Your task to perform on an android device: Clear the cart on walmart.com. Add "bose soundlink mini" to the cart on walmart.com Image 0: 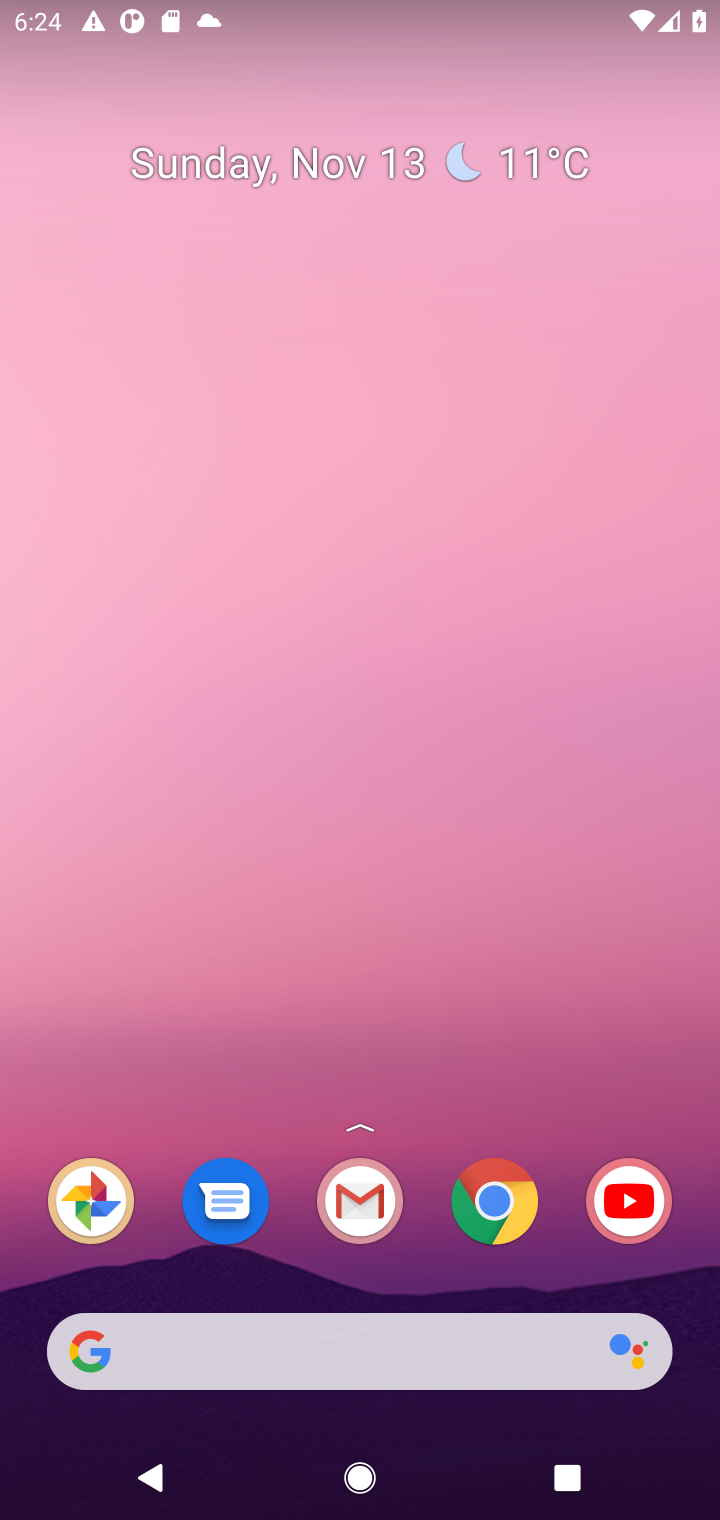
Step 0: drag from (412, 1307) to (445, 206)
Your task to perform on an android device: Clear the cart on walmart.com. Add "bose soundlink mini" to the cart on walmart.com Image 1: 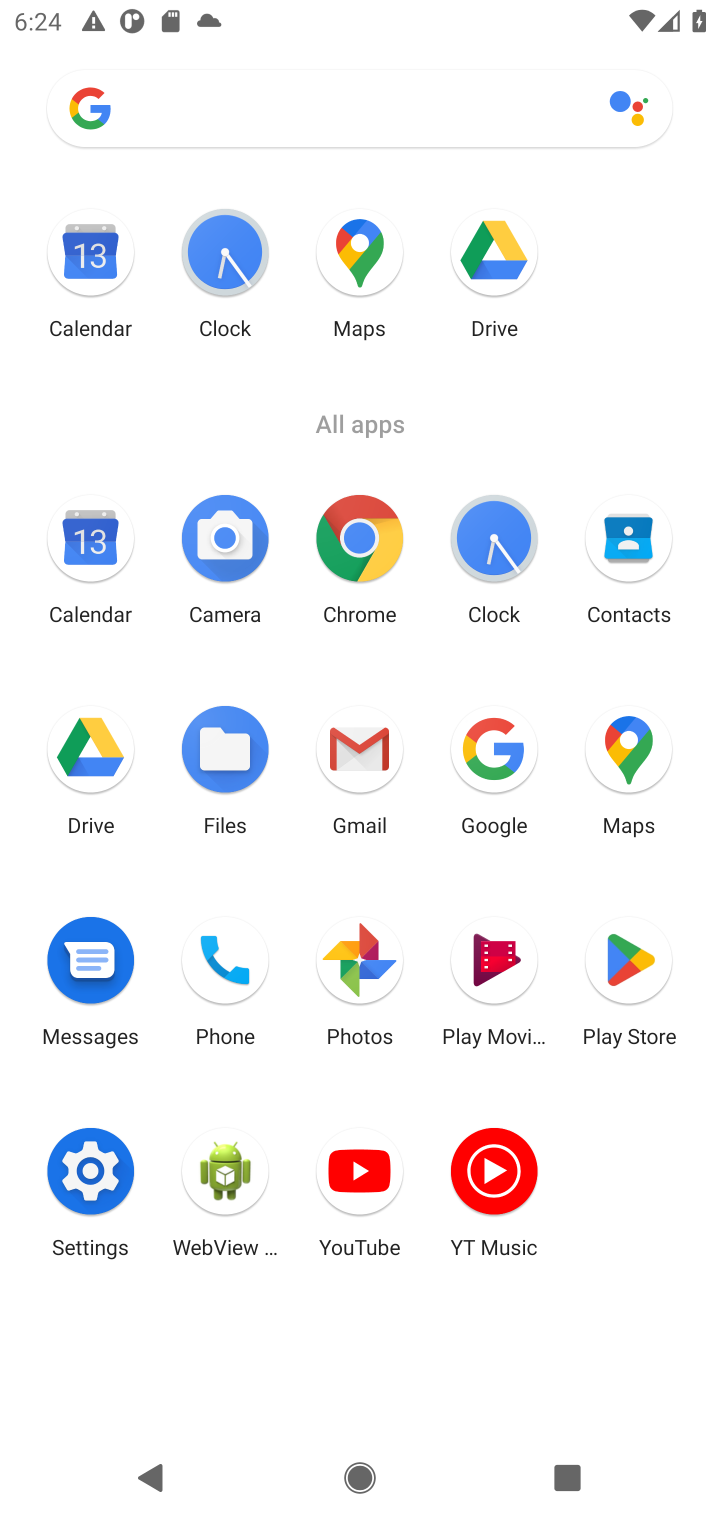
Step 1: click (348, 535)
Your task to perform on an android device: Clear the cart on walmart.com. Add "bose soundlink mini" to the cart on walmart.com Image 2: 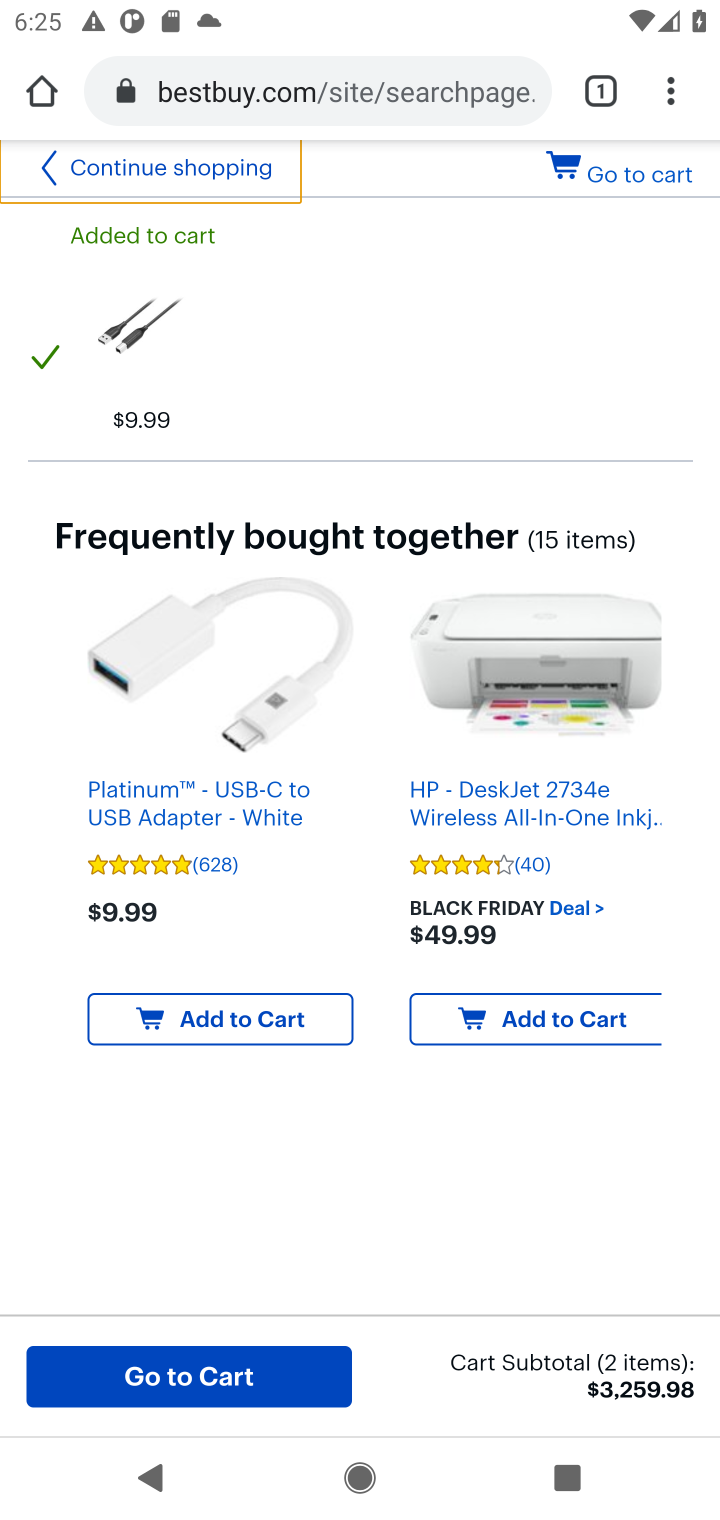
Step 2: click (226, 99)
Your task to perform on an android device: Clear the cart on walmart.com. Add "bose soundlink mini" to the cart on walmart.com Image 3: 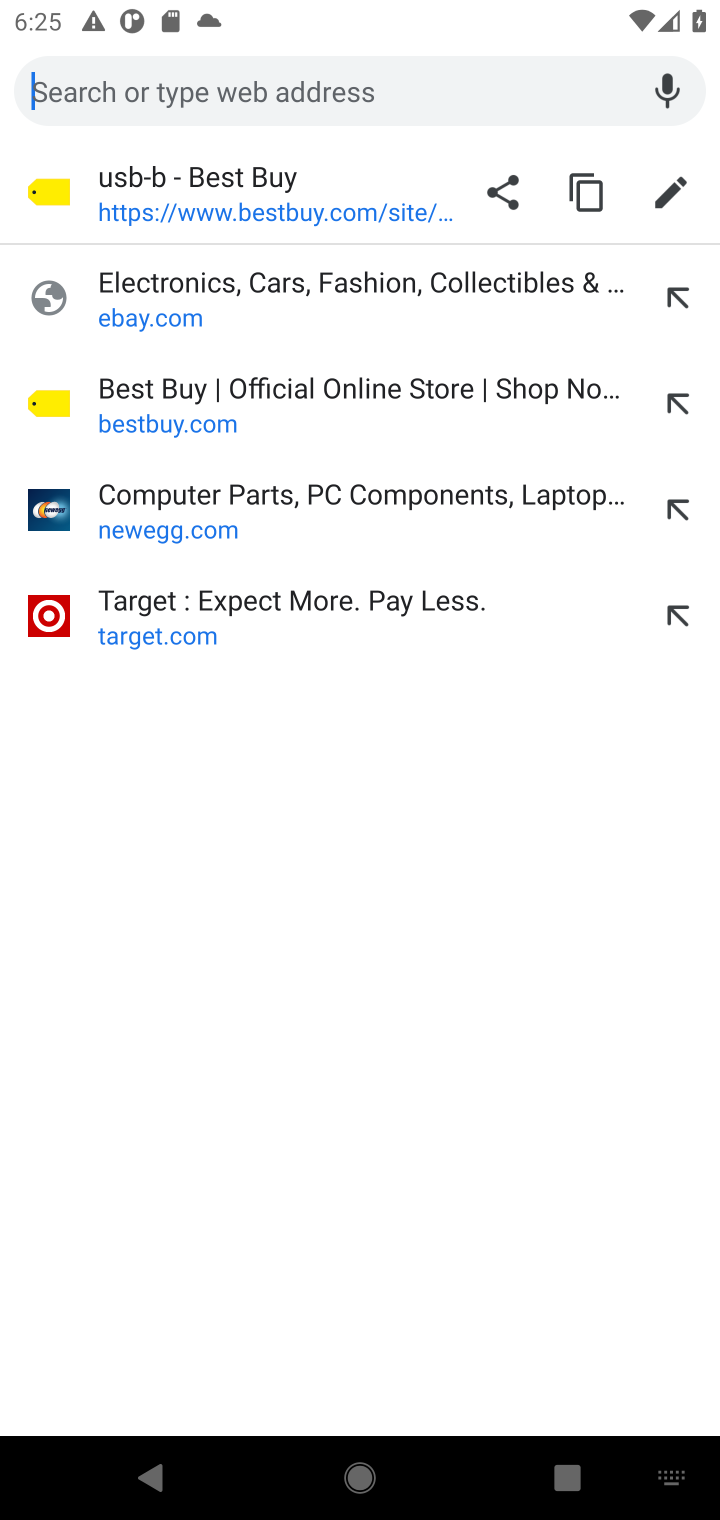
Step 3: type "walmart.com"
Your task to perform on an android device: Clear the cart on walmart.com. Add "bose soundlink mini" to the cart on walmart.com Image 4: 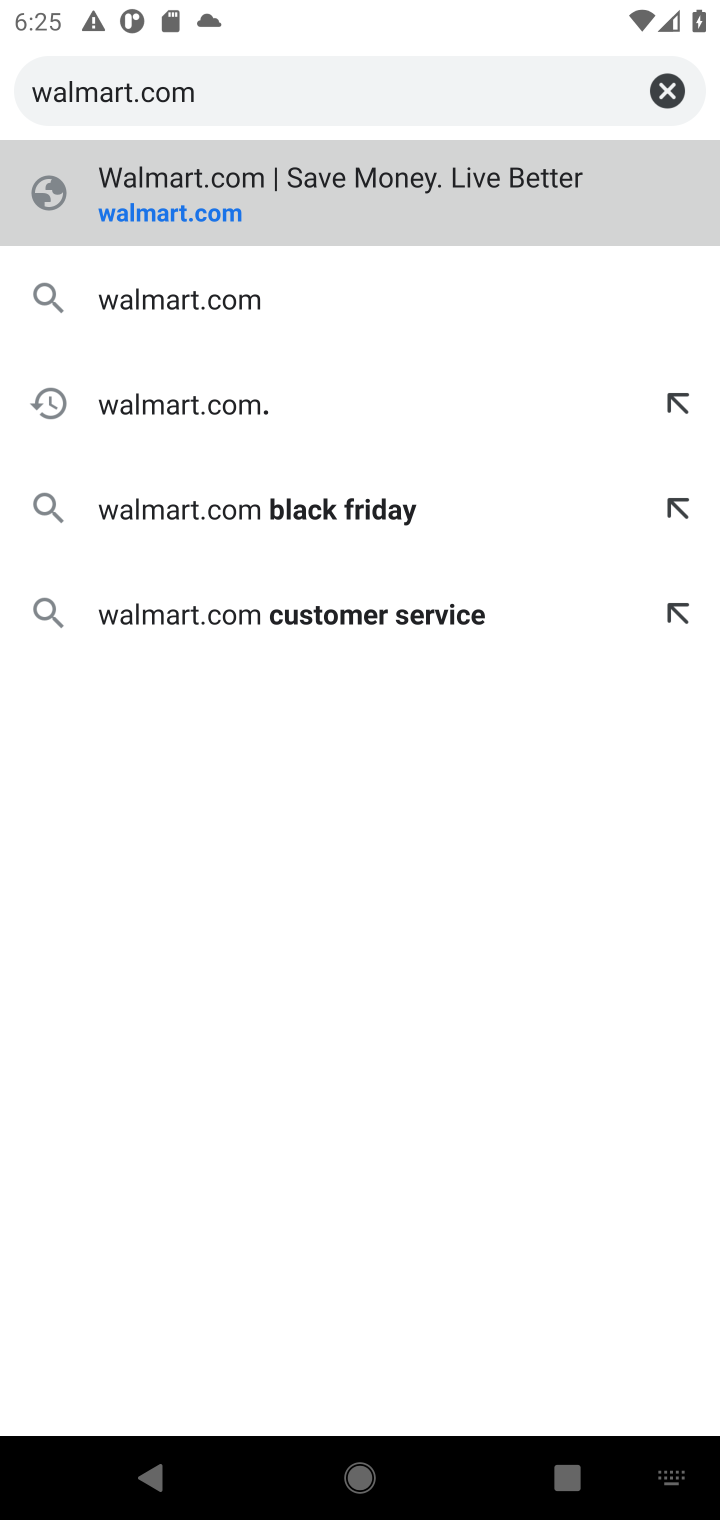
Step 4: press enter
Your task to perform on an android device: Clear the cart on walmart.com. Add "bose soundlink mini" to the cart on walmart.com Image 5: 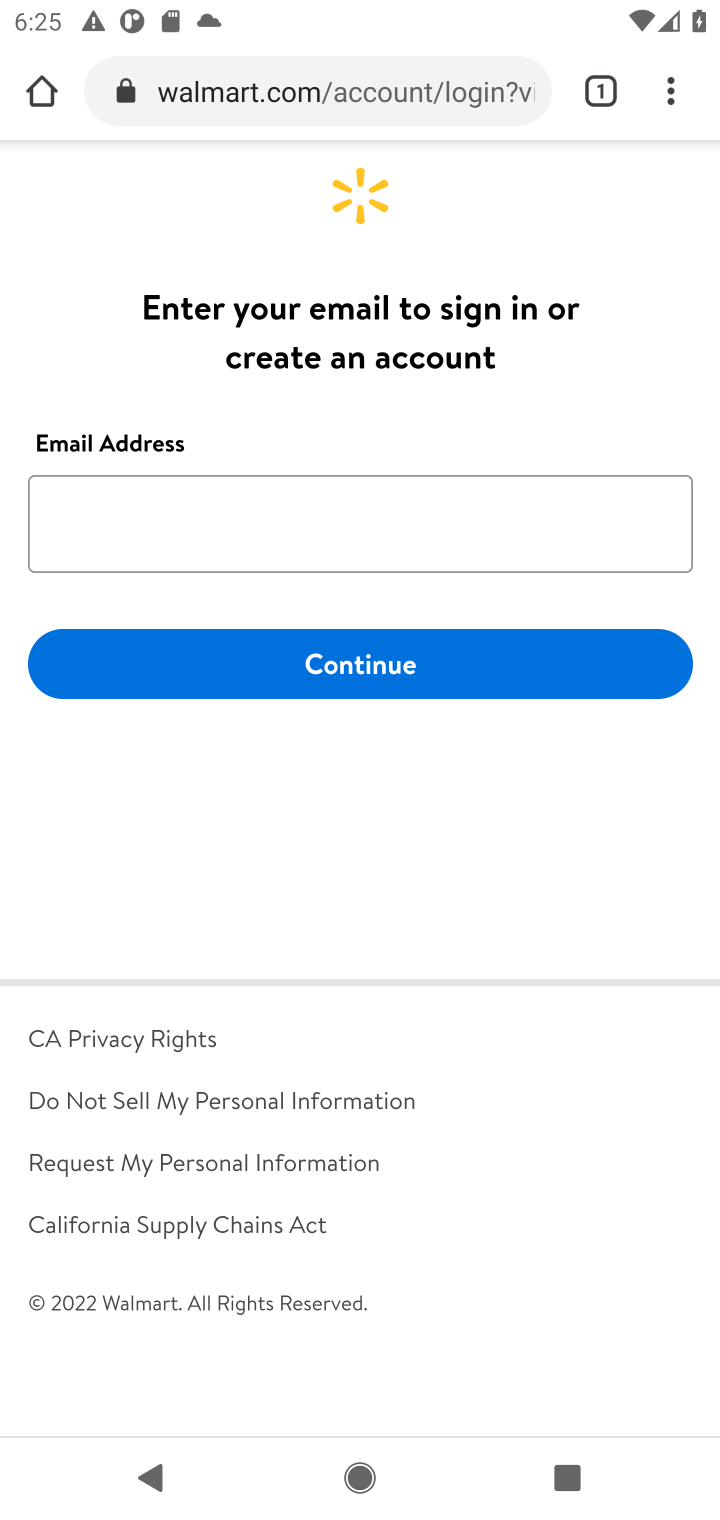
Step 5: click (388, 83)
Your task to perform on an android device: Clear the cart on walmart.com. Add "bose soundlink mini" to the cart on walmart.com Image 6: 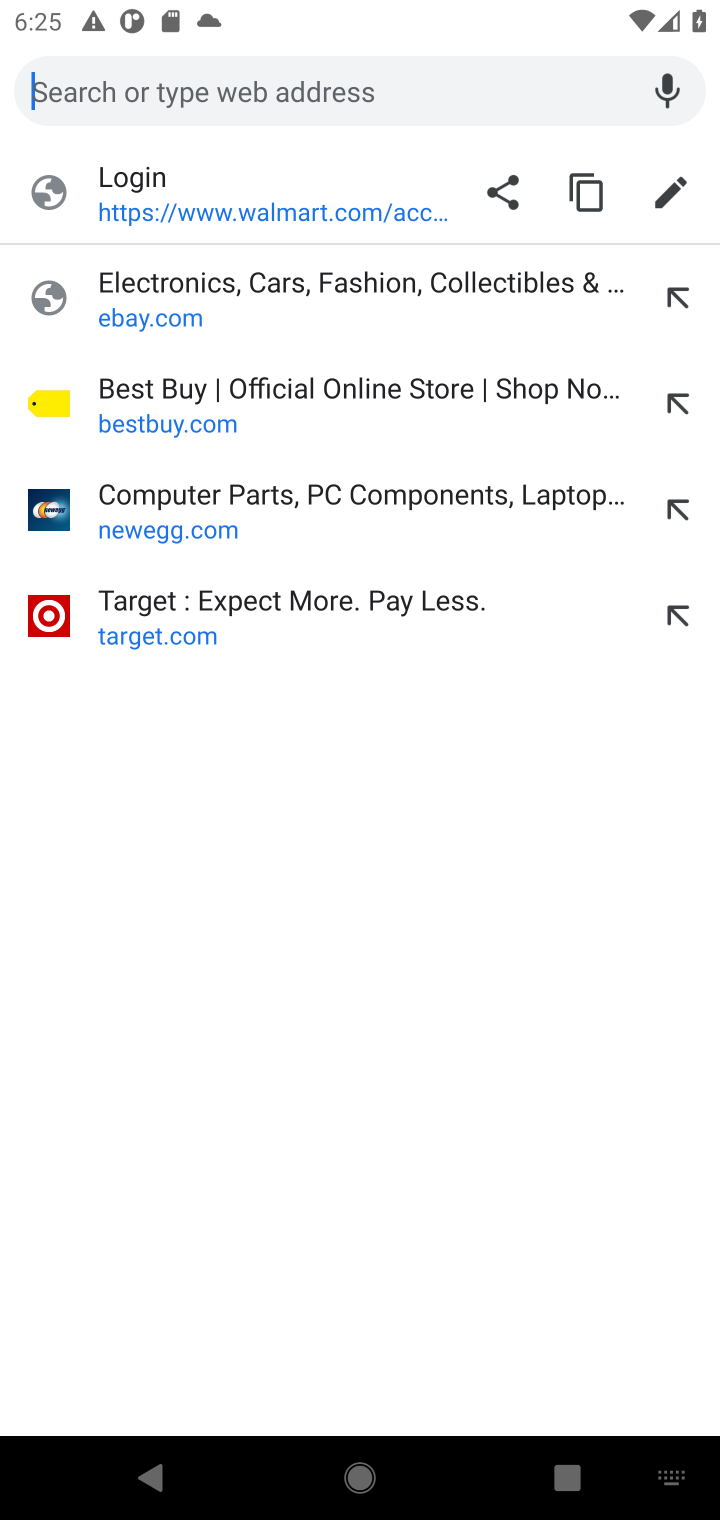
Step 6: type "walmart.com"
Your task to perform on an android device: Clear the cart on walmart.com. Add "bose soundlink mini" to the cart on walmart.com Image 7: 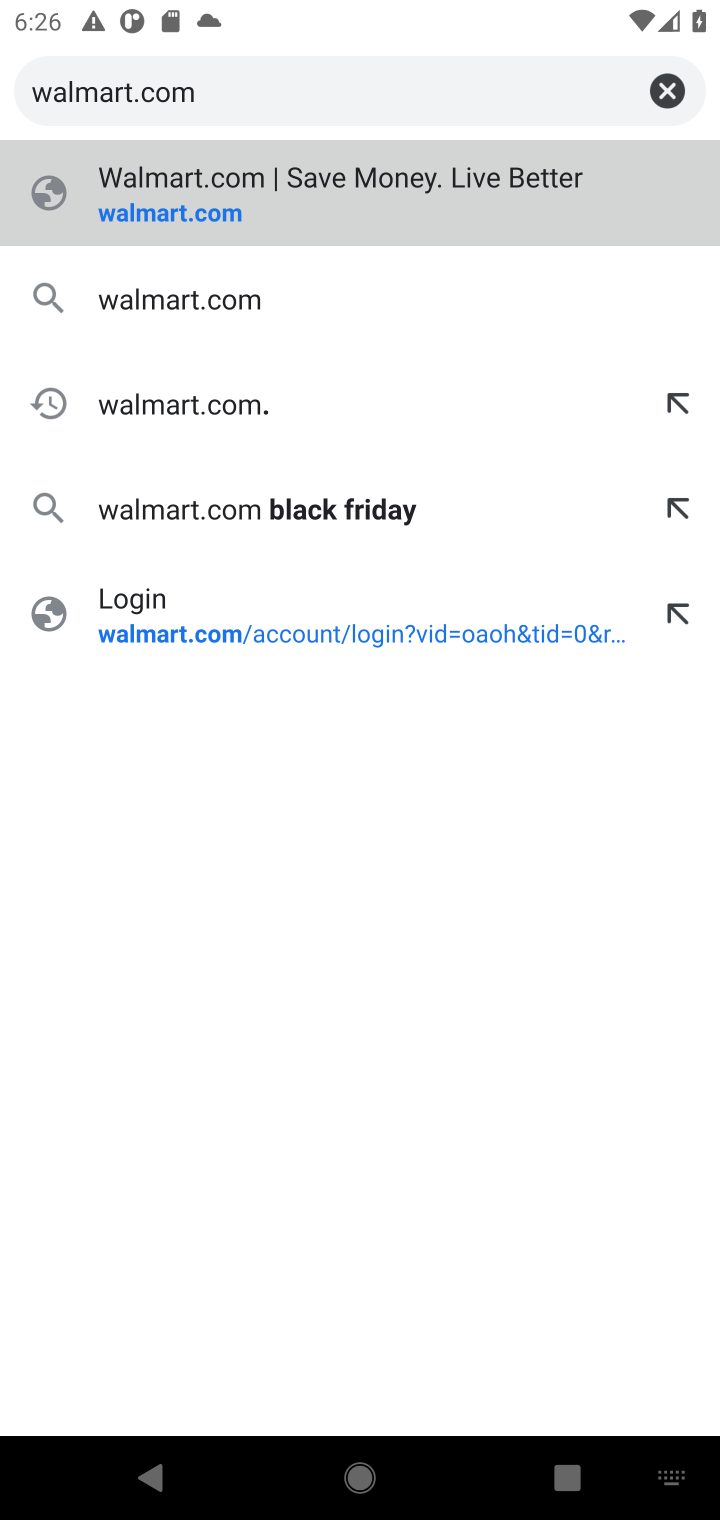
Step 7: press enter
Your task to perform on an android device: Clear the cart on walmart.com. Add "bose soundlink mini" to the cart on walmart.com Image 8: 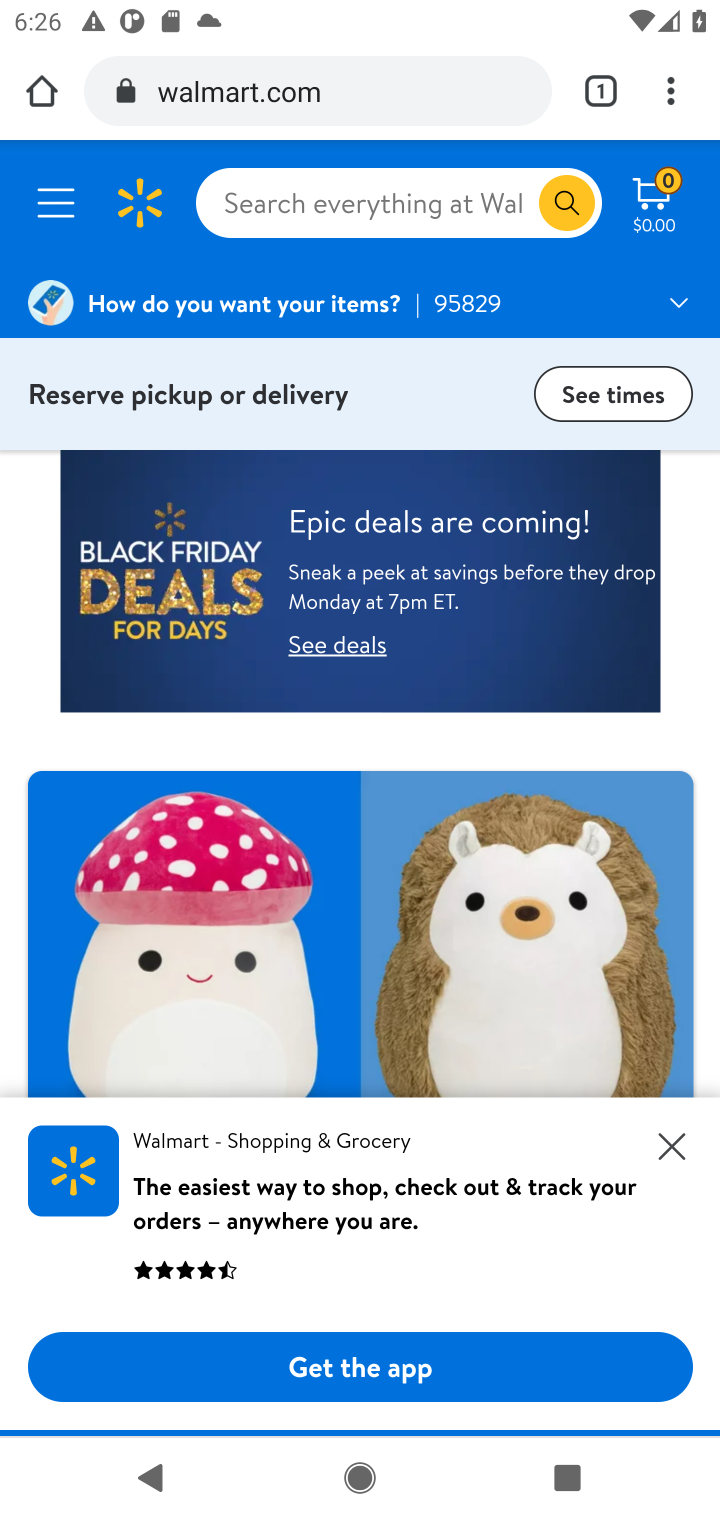
Step 8: click (391, 200)
Your task to perform on an android device: Clear the cart on walmart.com. Add "bose soundlink mini" to the cart on walmart.com Image 9: 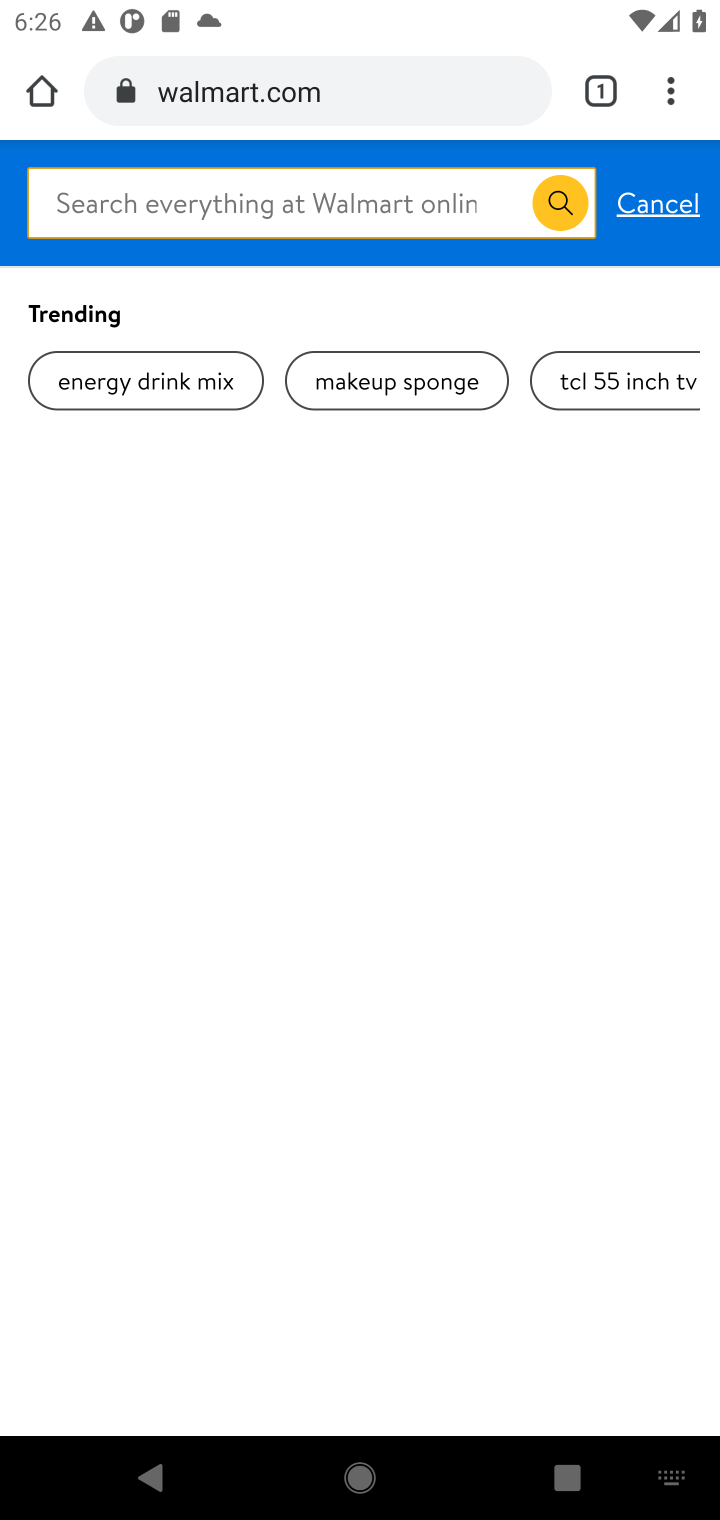
Step 9: click (672, 190)
Your task to perform on an android device: Clear the cart on walmart.com. Add "bose soundlink mini" to the cart on walmart.com Image 10: 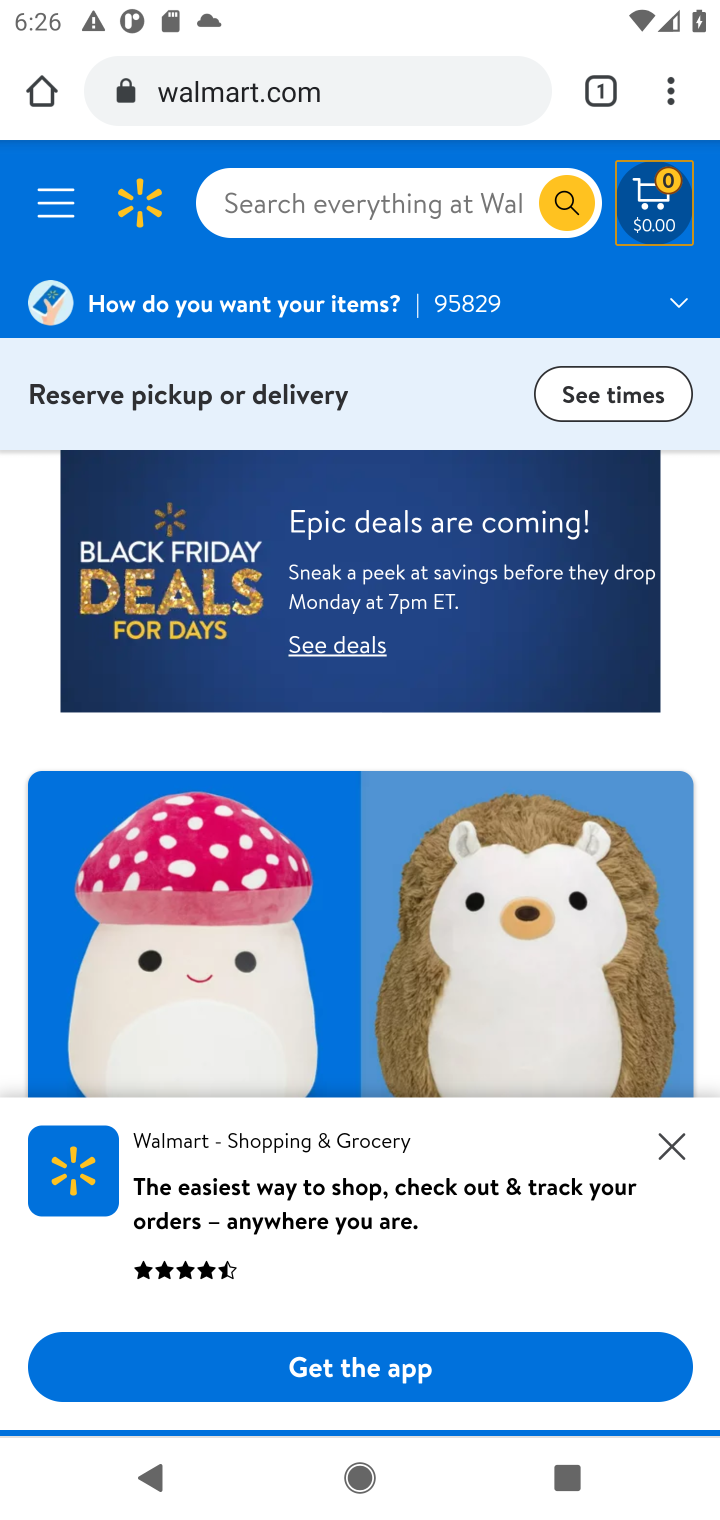
Step 10: click (672, 190)
Your task to perform on an android device: Clear the cart on walmart.com. Add "bose soundlink mini" to the cart on walmart.com Image 11: 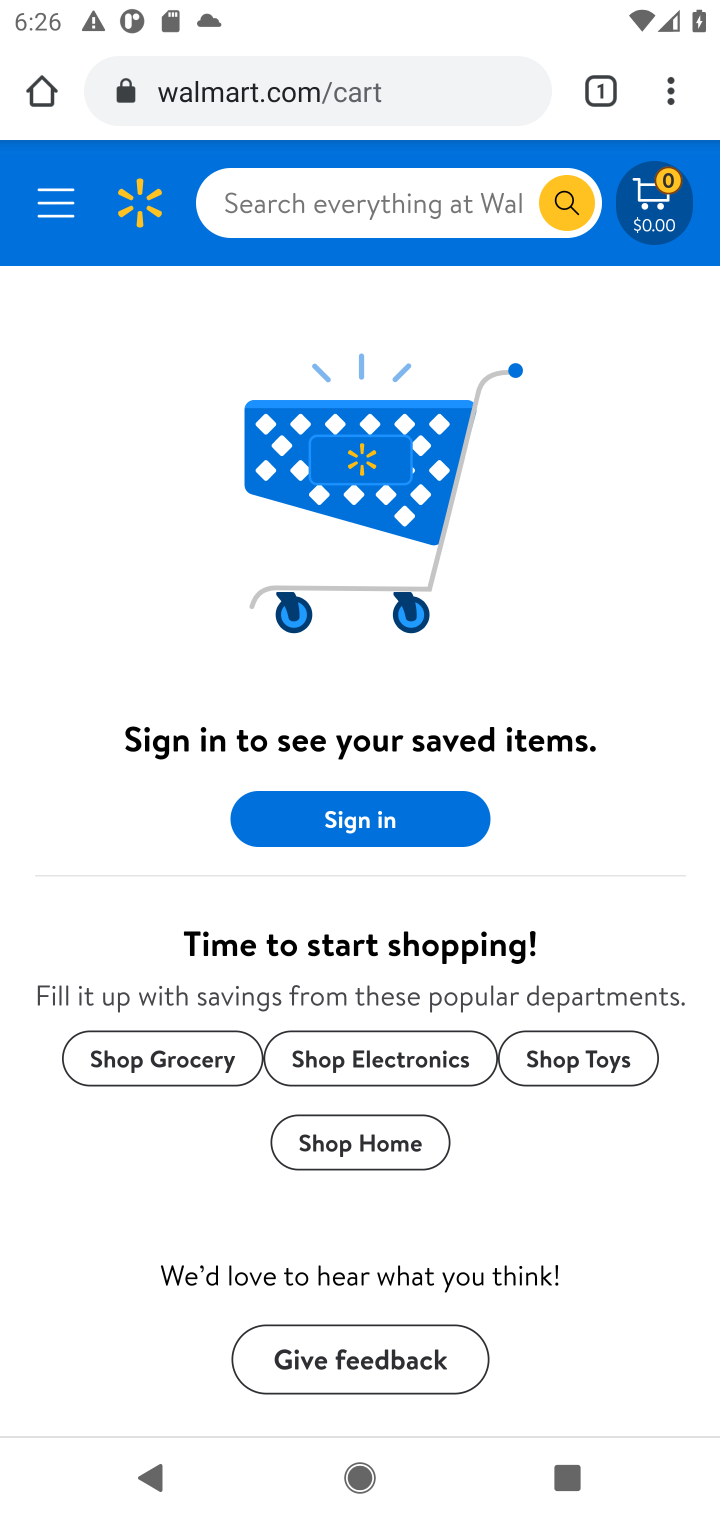
Step 11: click (425, 208)
Your task to perform on an android device: Clear the cart on walmart.com. Add "bose soundlink mini" to the cart on walmart.com Image 12: 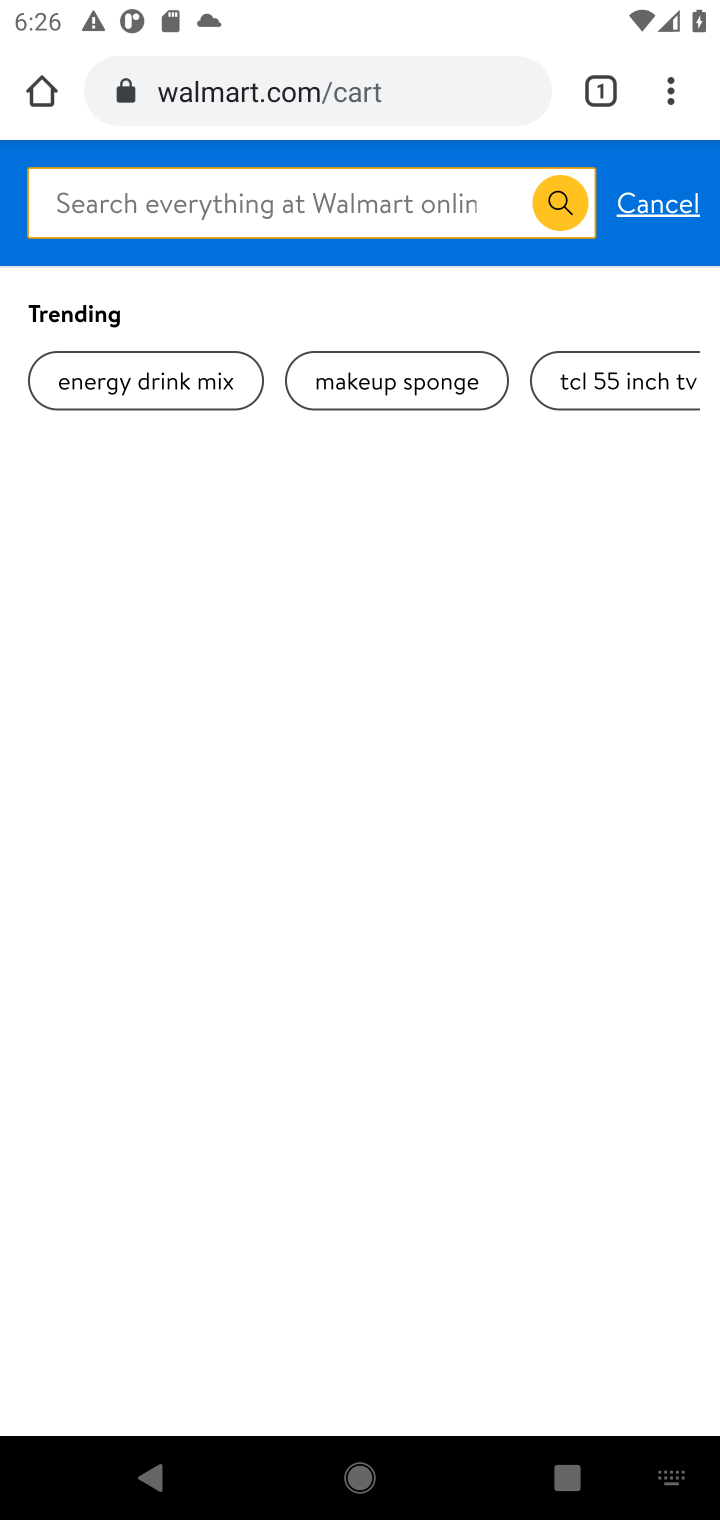
Step 12: type "bose soundlink mini"
Your task to perform on an android device: Clear the cart on walmart.com. Add "bose soundlink mini" to the cart on walmart.com Image 13: 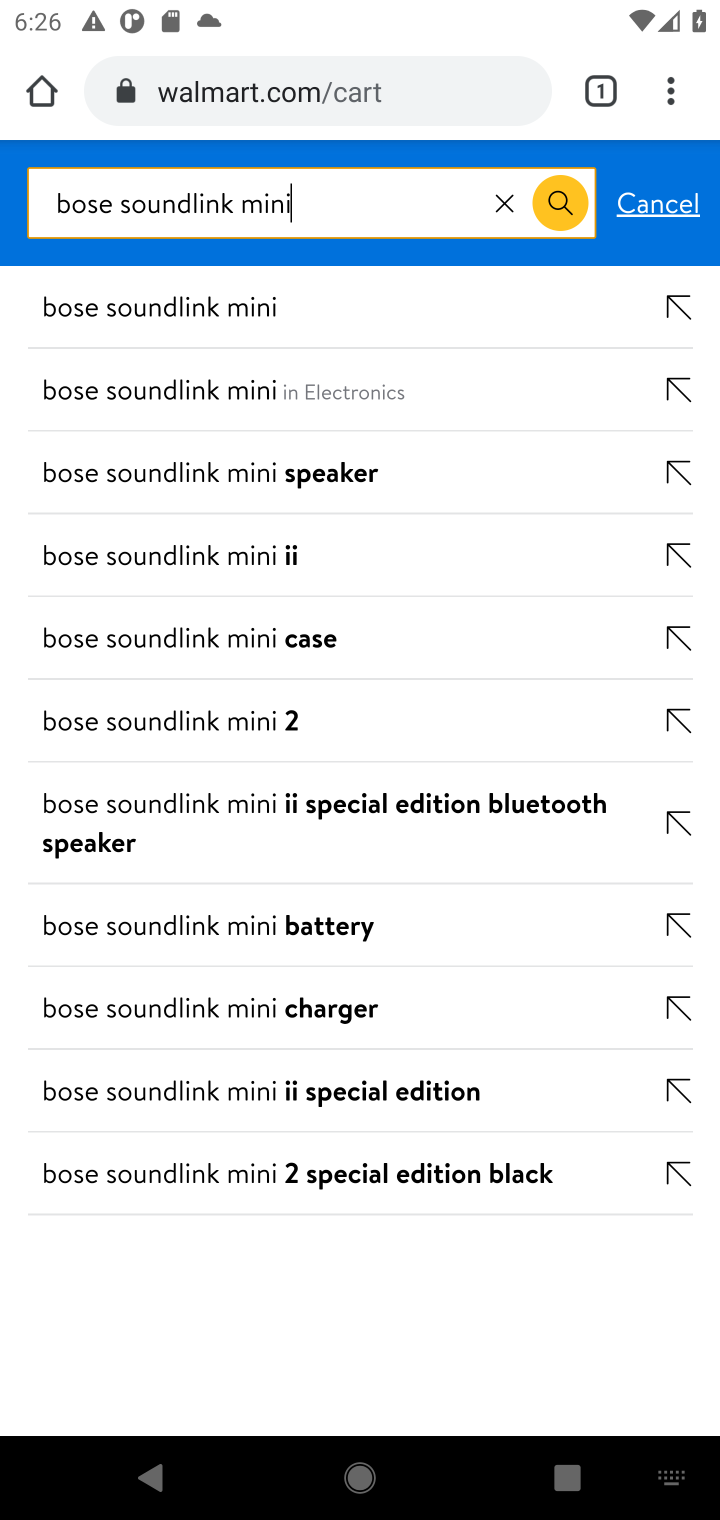
Step 13: press enter
Your task to perform on an android device: Clear the cart on walmart.com. Add "bose soundlink mini" to the cart on walmart.com Image 14: 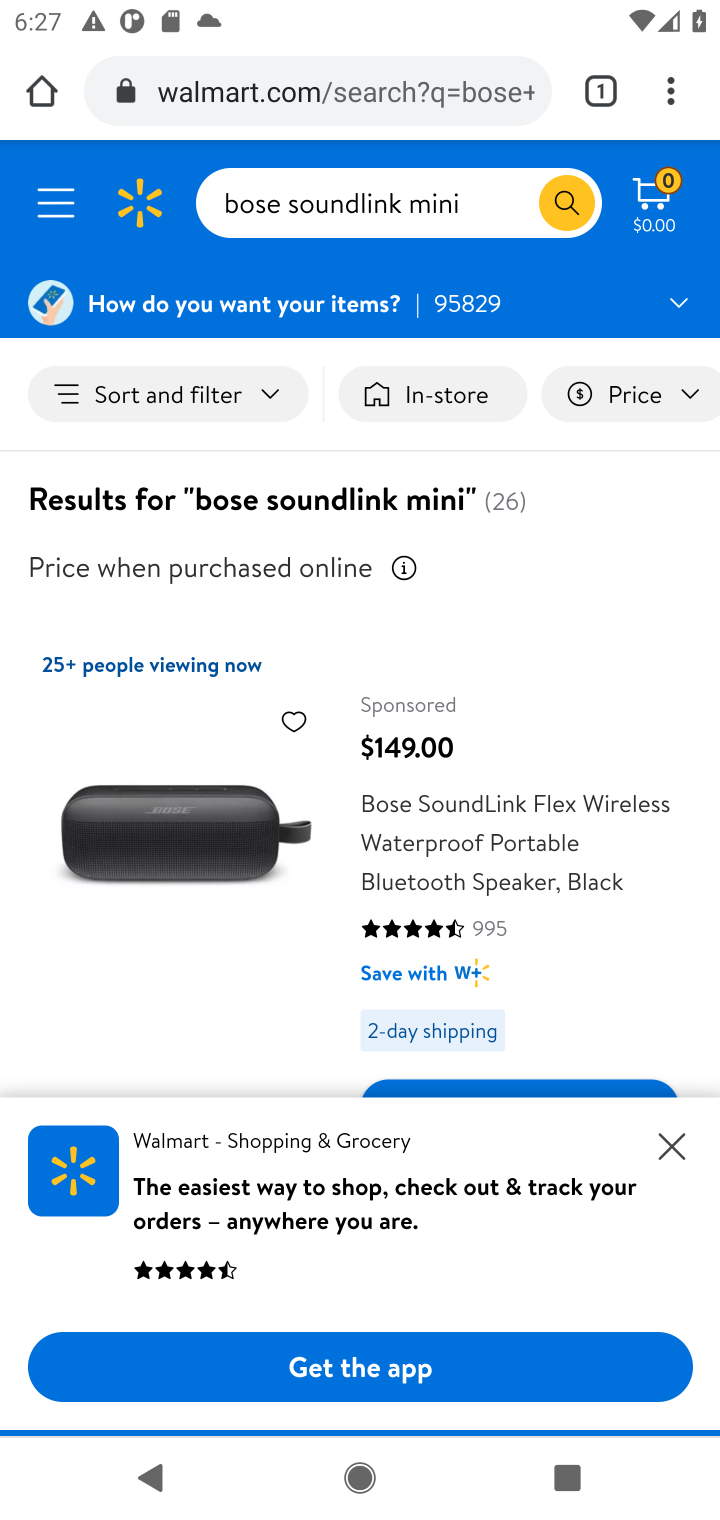
Step 14: task complete